Your task to perform on an android device: Open location settings Image 0: 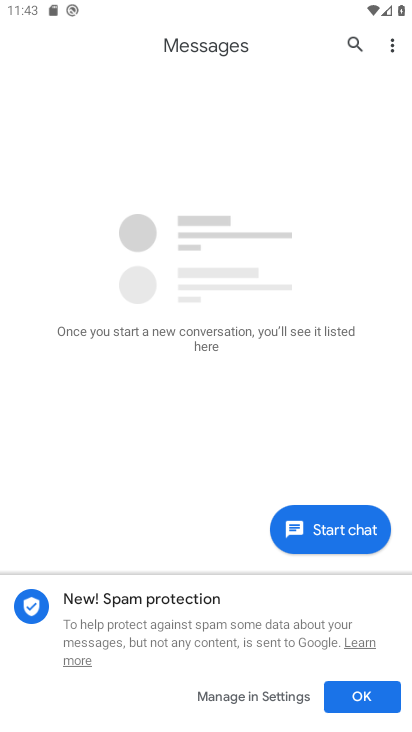
Step 0: press home button
Your task to perform on an android device: Open location settings Image 1: 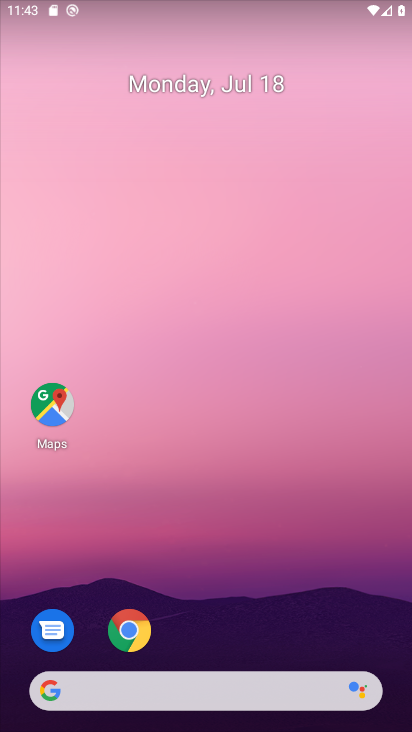
Step 1: drag from (211, 673) to (226, 105)
Your task to perform on an android device: Open location settings Image 2: 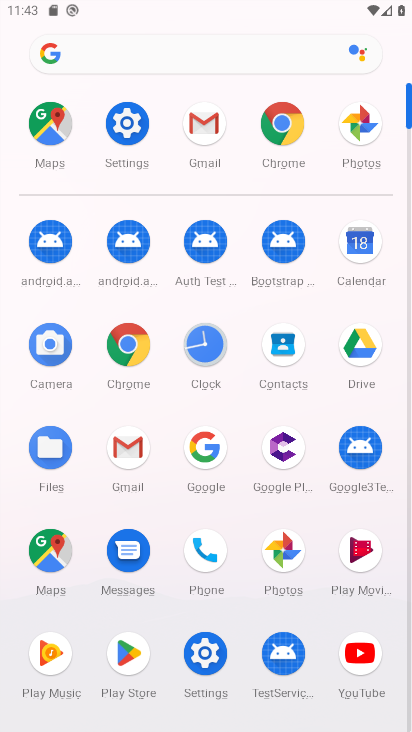
Step 2: click (215, 666)
Your task to perform on an android device: Open location settings Image 3: 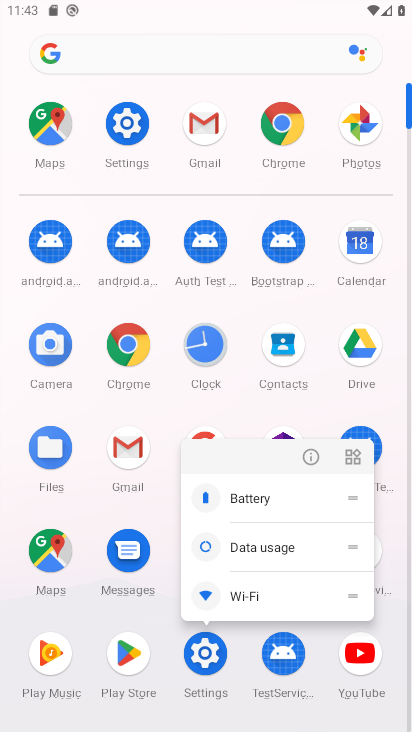
Step 3: click (214, 668)
Your task to perform on an android device: Open location settings Image 4: 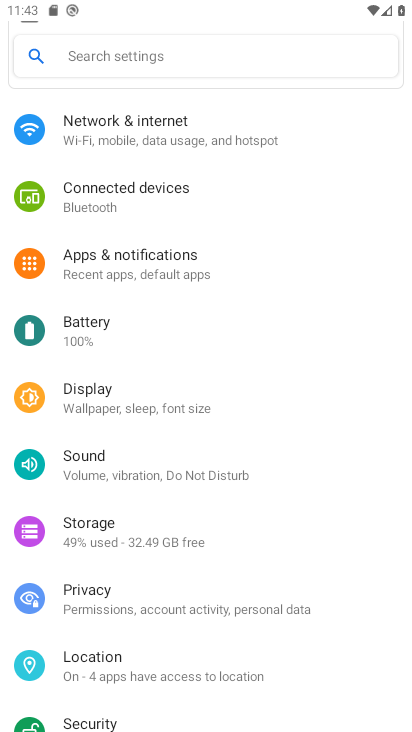
Step 4: click (166, 674)
Your task to perform on an android device: Open location settings Image 5: 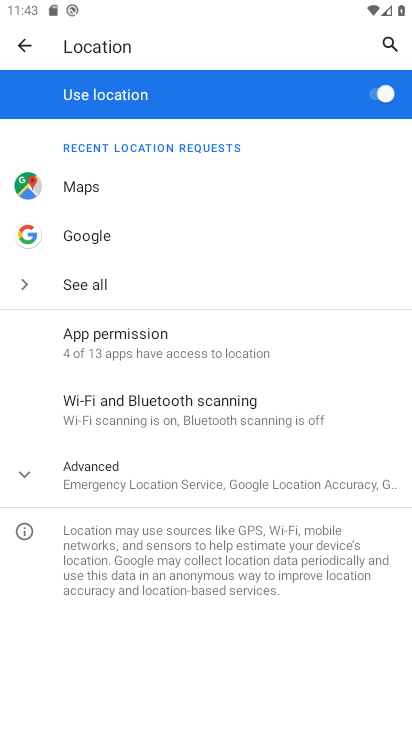
Step 5: task complete